Your task to perform on an android device: Go to Google maps Image 0: 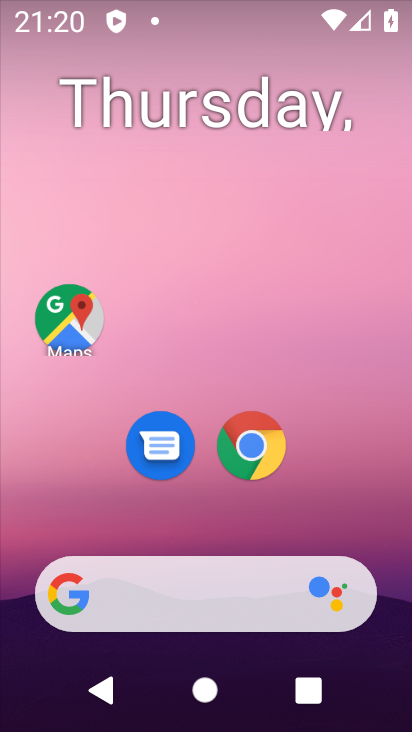
Step 0: press home button
Your task to perform on an android device: Go to Google maps Image 1: 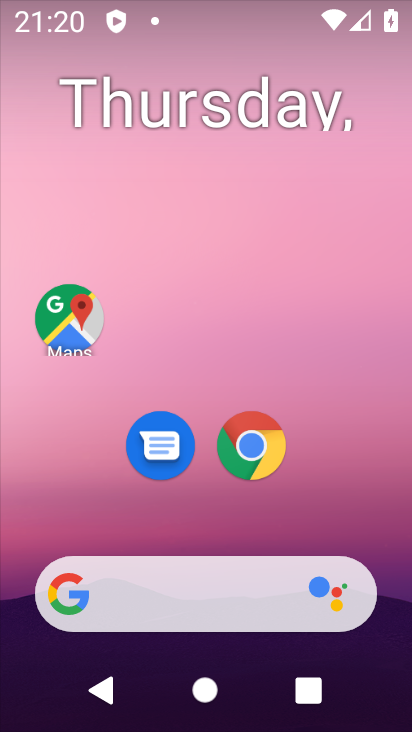
Step 1: click (67, 317)
Your task to perform on an android device: Go to Google maps Image 2: 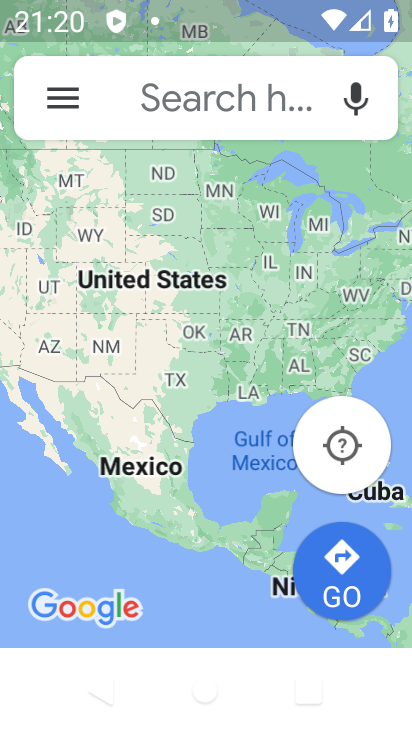
Step 2: task complete